Your task to perform on an android device: Open battery settings Image 0: 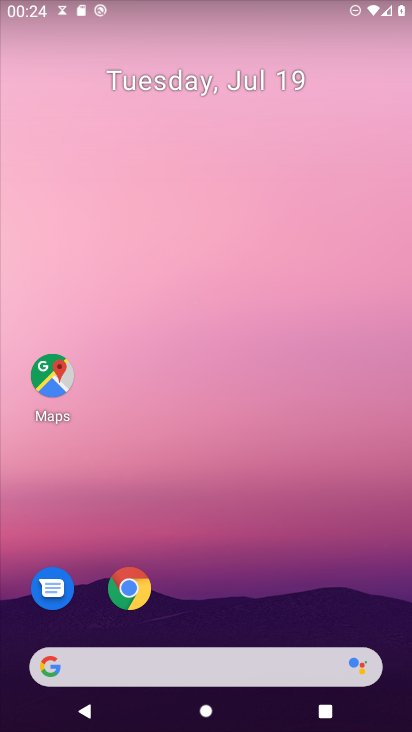
Step 0: drag from (288, 450) to (262, 0)
Your task to perform on an android device: Open battery settings Image 1: 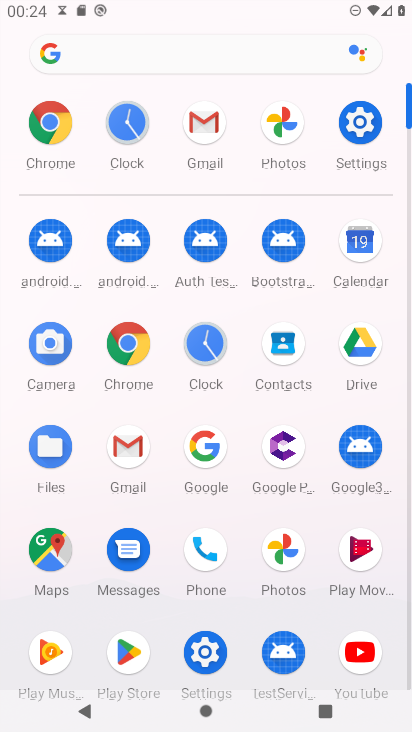
Step 1: click (357, 130)
Your task to perform on an android device: Open battery settings Image 2: 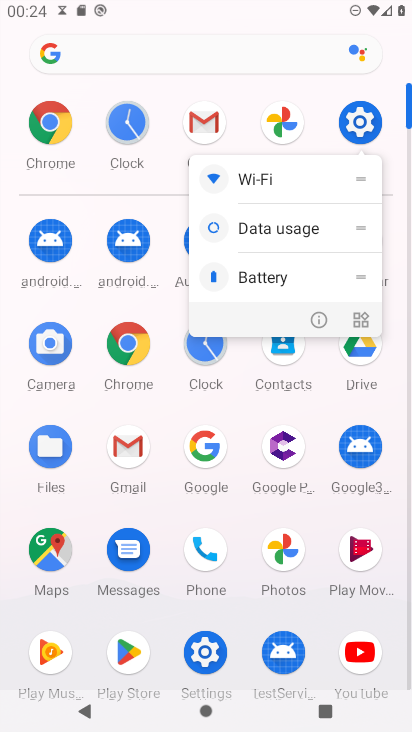
Step 2: click (365, 122)
Your task to perform on an android device: Open battery settings Image 3: 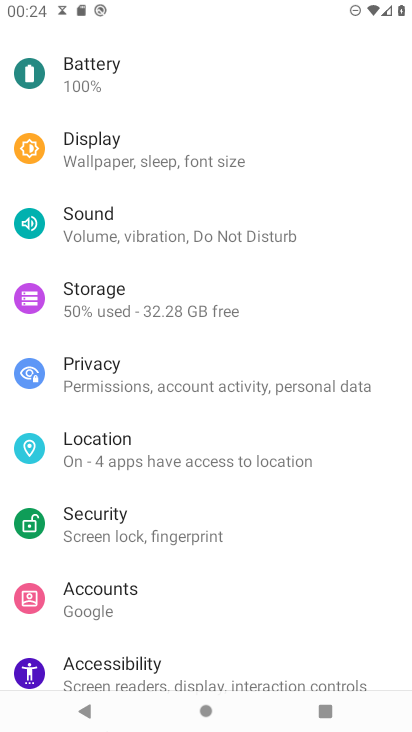
Step 3: click (76, 66)
Your task to perform on an android device: Open battery settings Image 4: 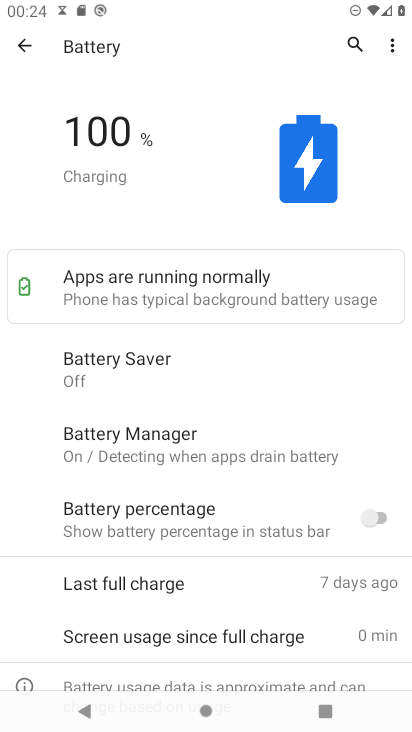
Step 4: task complete